Your task to perform on an android device: add a contact Image 0: 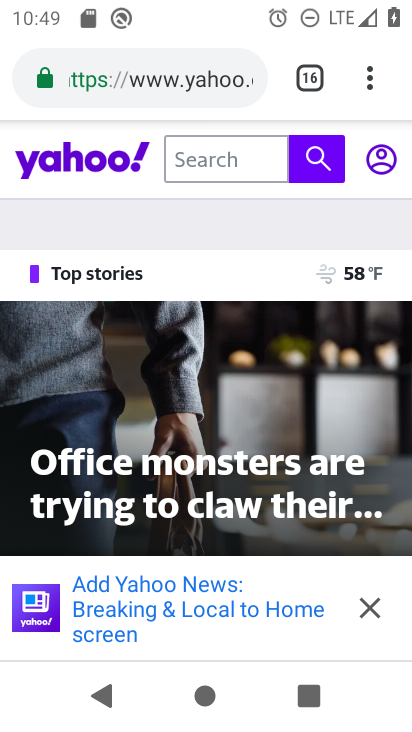
Step 0: press home button
Your task to perform on an android device: add a contact Image 1: 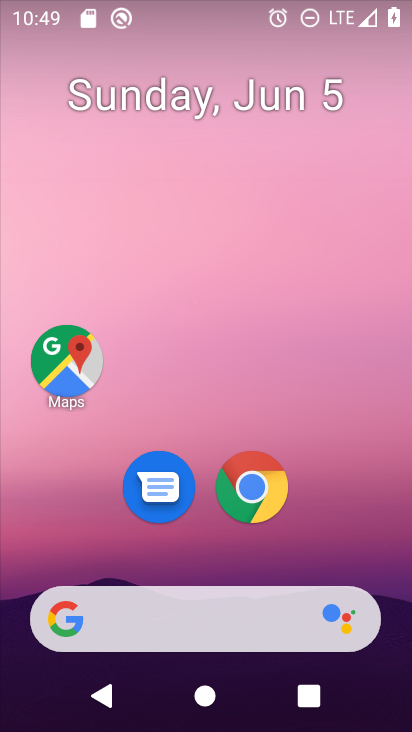
Step 1: drag from (214, 533) to (203, 161)
Your task to perform on an android device: add a contact Image 2: 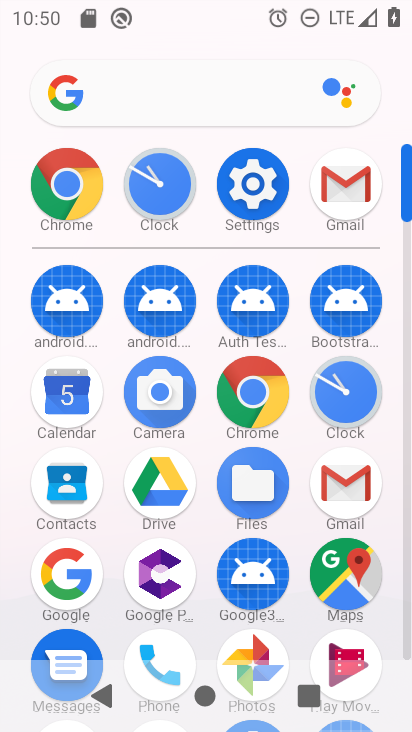
Step 2: click (150, 642)
Your task to perform on an android device: add a contact Image 3: 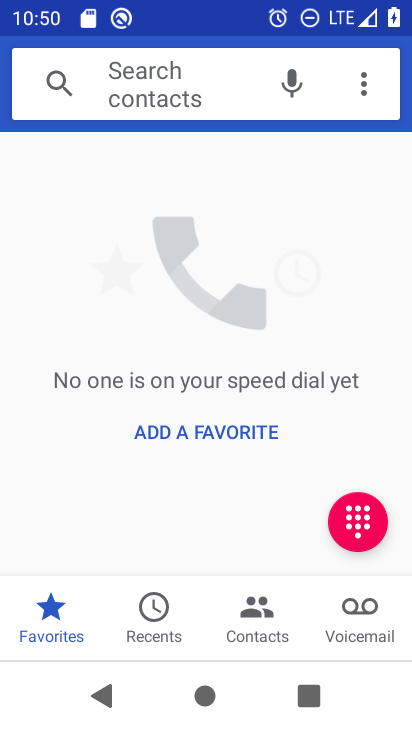
Step 3: click (215, 434)
Your task to perform on an android device: add a contact Image 4: 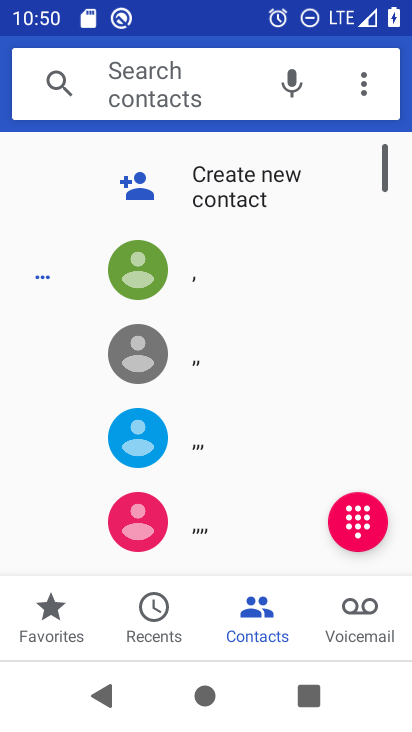
Step 4: click (168, 183)
Your task to perform on an android device: add a contact Image 5: 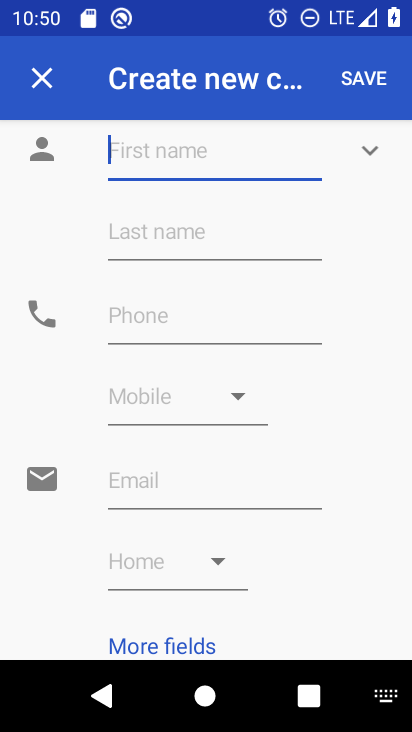
Step 5: click (144, 159)
Your task to perform on an android device: add a contact Image 6: 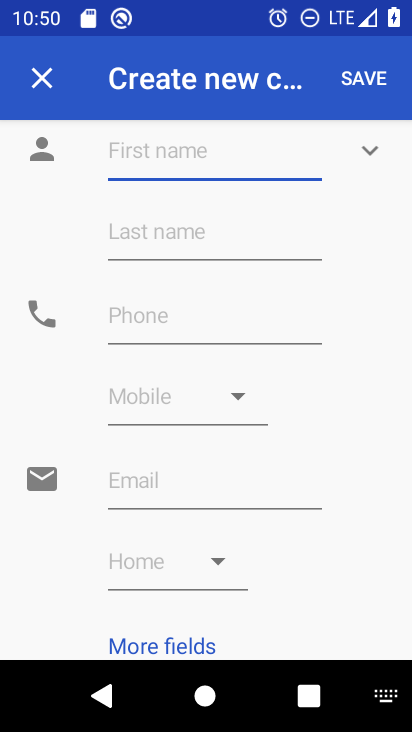
Step 6: type "sdfghjk"
Your task to perform on an android device: add a contact Image 7: 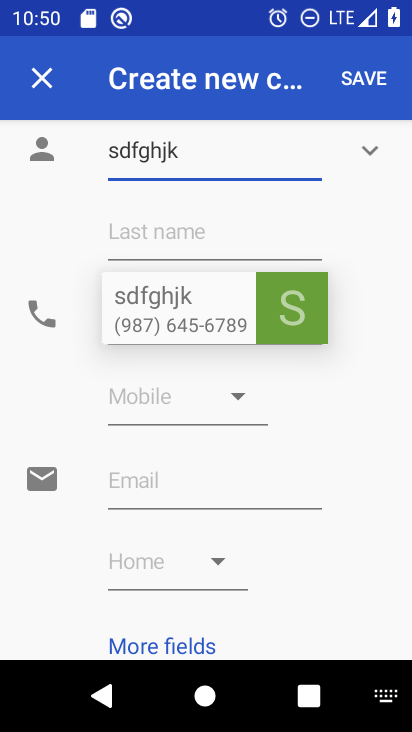
Step 7: click (212, 383)
Your task to perform on an android device: add a contact Image 8: 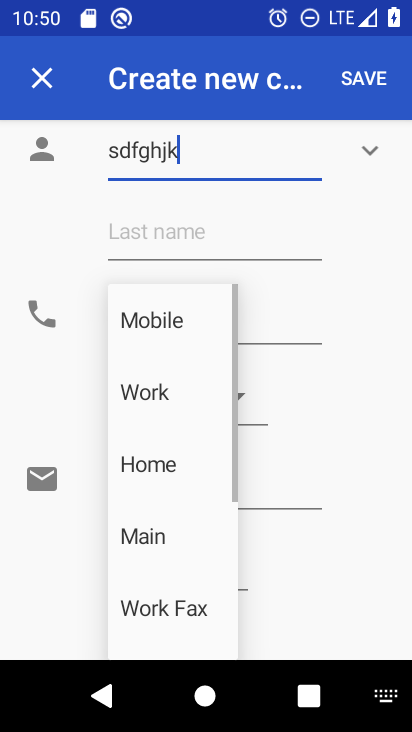
Step 8: click (180, 320)
Your task to perform on an android device: add a contact Image 9: 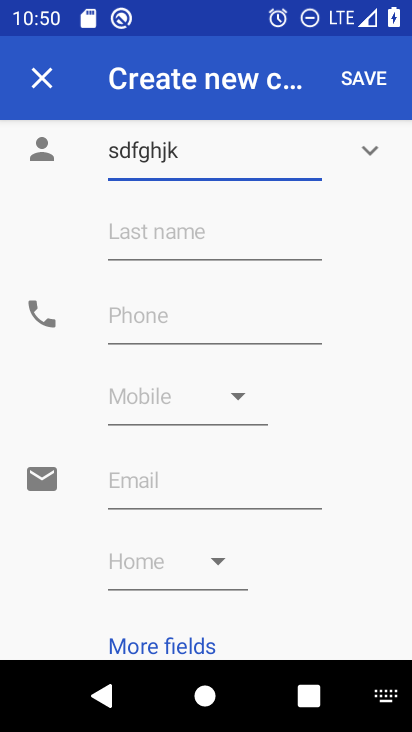
Step 9: click (267, 312)
Your task to perform on an android device: add a contact Image 10: 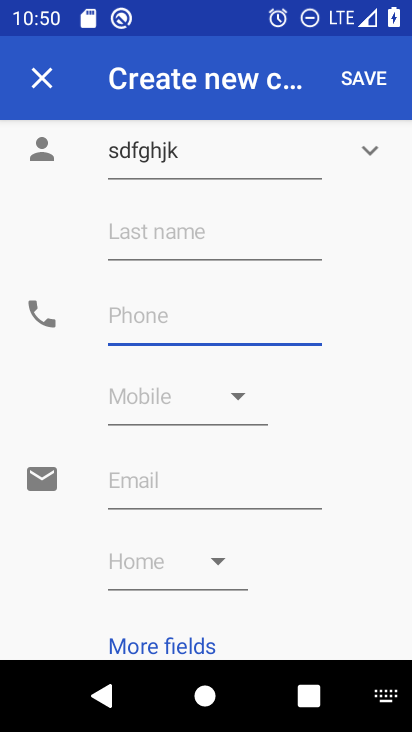
Step 10: type "1234567890"
Your task to perform on an android device: add a contact Image 11: 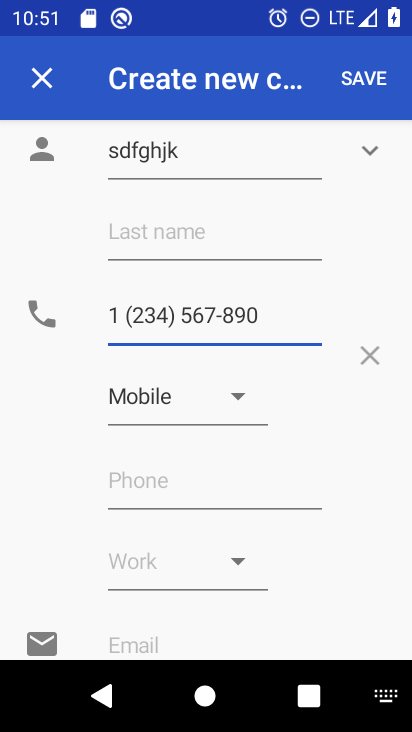
Step 11: click (367, 65)
Your task to perform on an android device: add a contact Image 12: 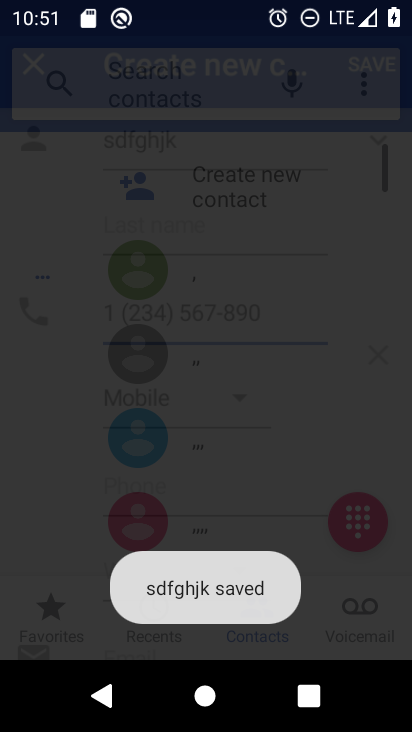
Step 12: task complete